Your task to perform on an android device: open a bookmark in the chrome app Image 0: 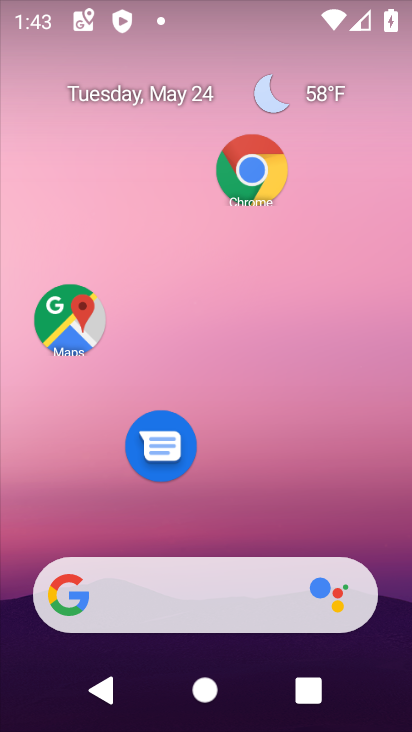
Step 0: click (232, 186)
Your task to perform on an android device: open a bookmark in the chrome app Image 1: 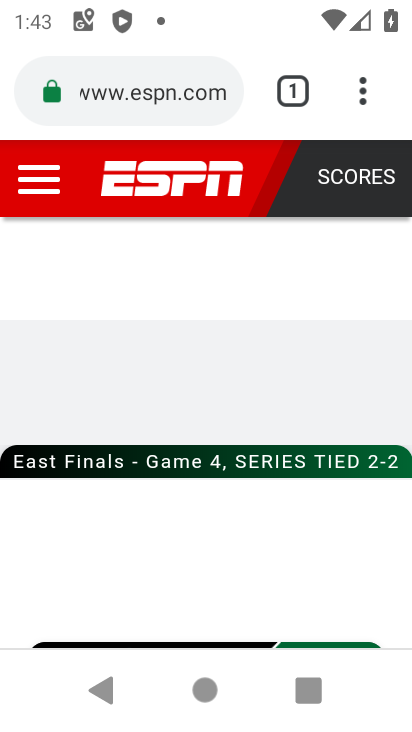
Step 1: click (359, 93)
Your task to perform on an android device: open a bookmark in the chrome app Image 2: 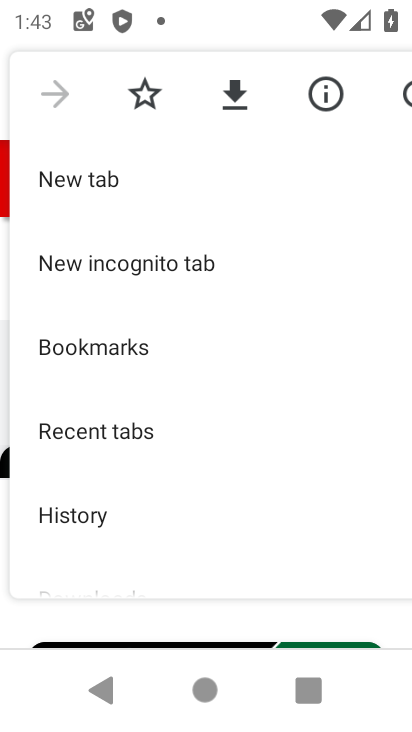
Step 2: click (158, 344)
Your task to perform on an android device: open a bookmark in the chrome app Image 3: 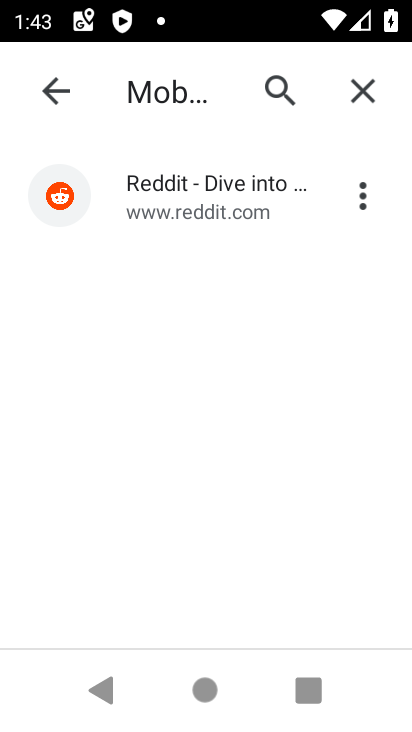
Step 3: click (232, 190)
Your task to perform on an android device: open a bookmark in the chrome app Image 4: 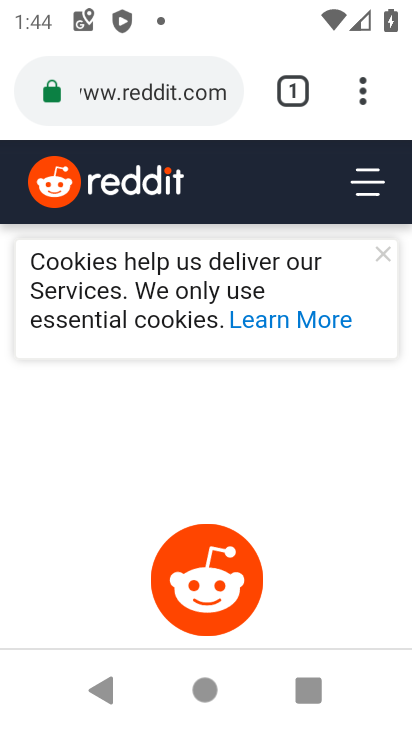
Step 4: task complete